Your task to perform on an android device: create a new album in the google photos Image 0: 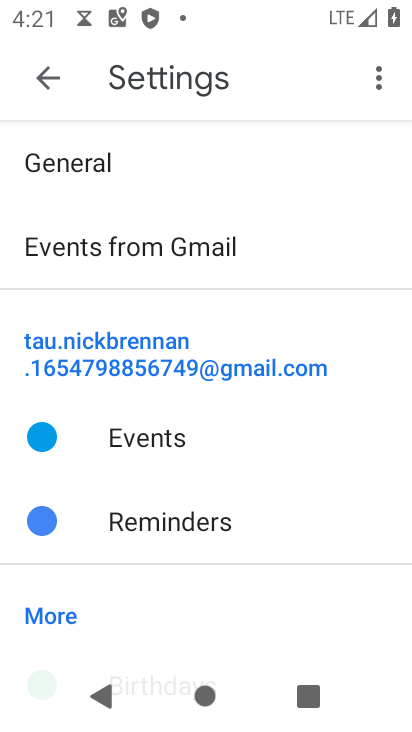
Step 0: press back button
Your task to perform on an android device: create a new album in the google photos Image 1: 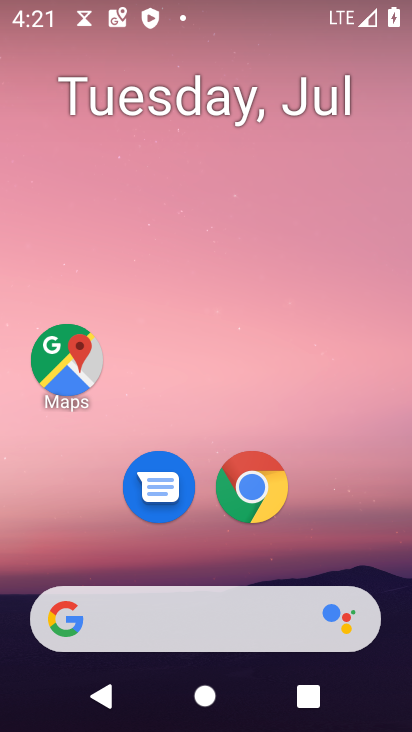
Step 1: drag from (197, 570) to (238, 0)
Your task to perform on an android device: create a new album in the google photos Image 2: 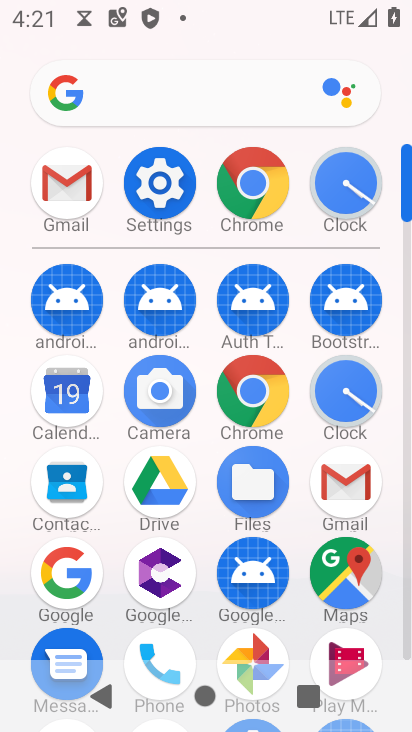
Step 2: drag from (248, 610) to (291, 119)
Your task to perform on an android device: create a new album in the google photos Image 3: 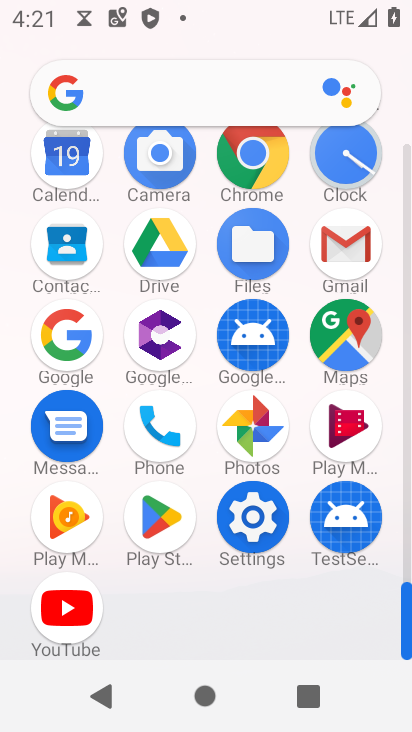
Step 3: click (248, 433)
Your task to perform on an android device: create a new album in the google photos Image 4: 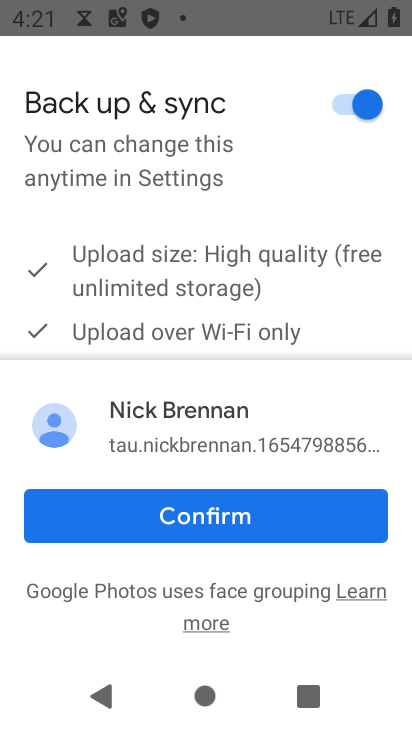
Step 4: click (210, 522)
Your task to perform on an android device: create a new album in the google photos Image 5: 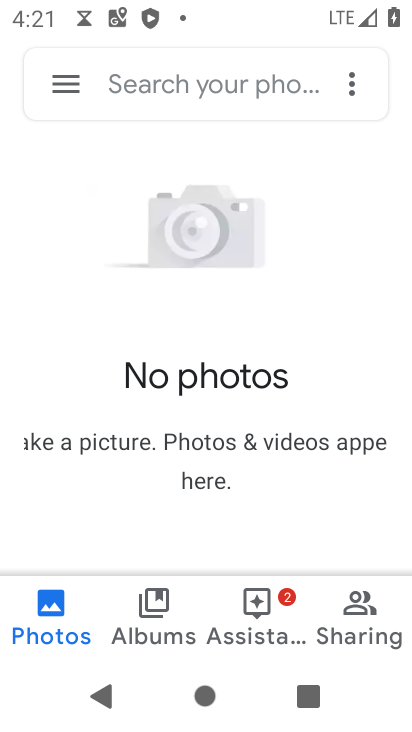
Step 5: click (57, 617)
Your task to perform on an android device: create a new album in the google photos Image 6: 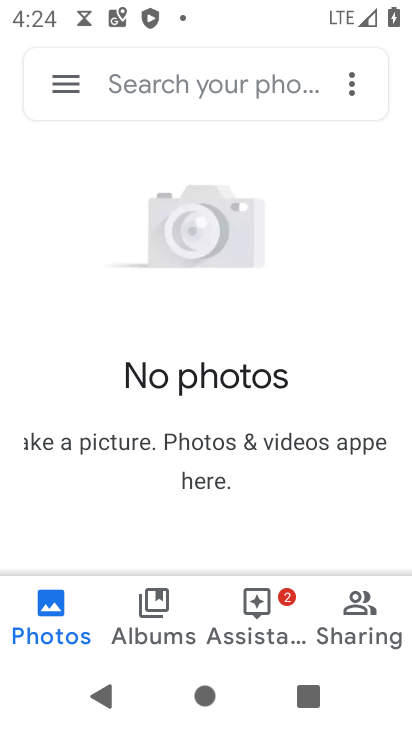
Step 6: click (144, 624)
Your task to perform on an android device: create a new album in the google photos Image 7: 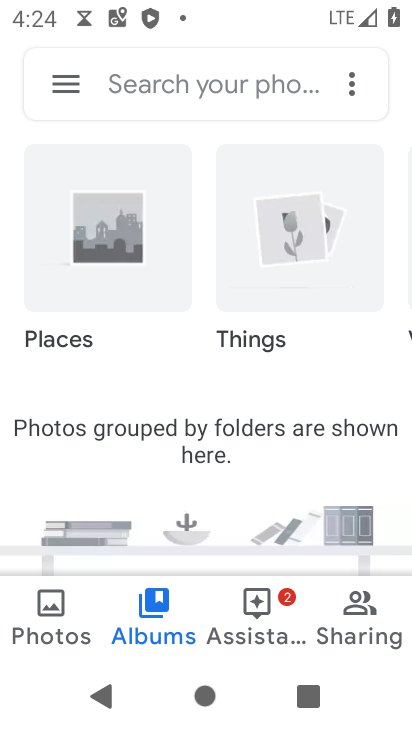
Step 7: drag from (126, 488) to (246, 26)
Your task to perform on an android device: create a new album in the google photos Image 8: 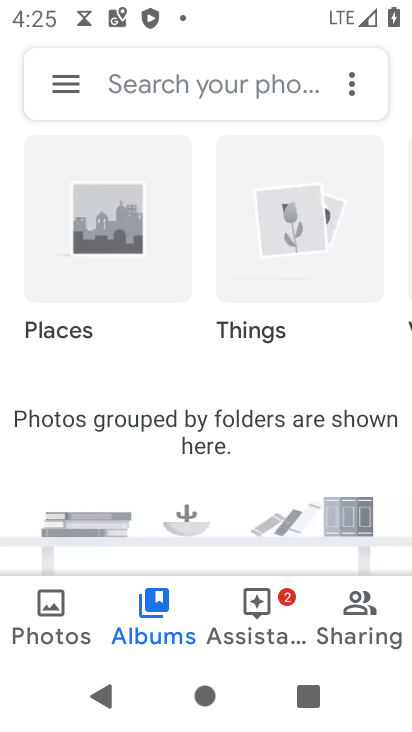
Step 8: drag from (159, 532) to (283, 7)
Your task to perform on an android device: create a new album in the google photos Image 9: 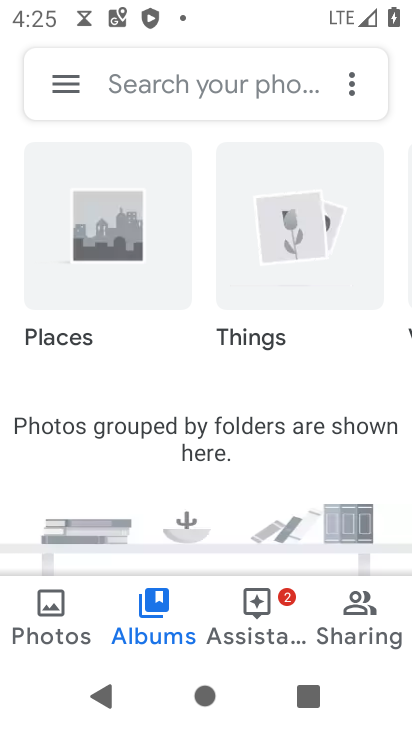
Step 9: drag from (268, 424) to (306, 22)
Your task to perform on an android device: create a new album in the google photos Image 10: 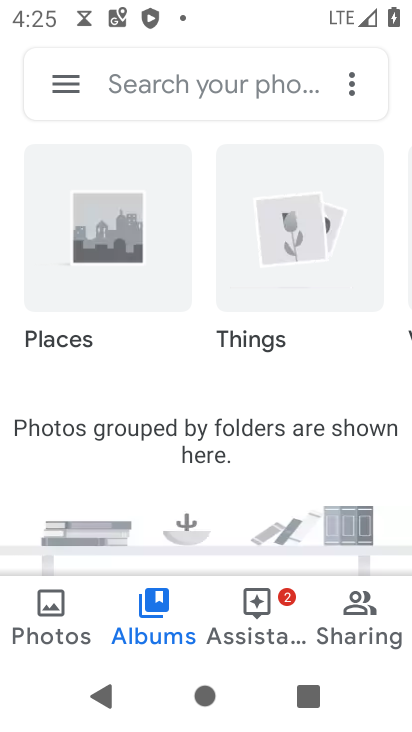
Step 10: click (148, 631)
Your task to perform on an android device: create a new album in the google photos Image 11: 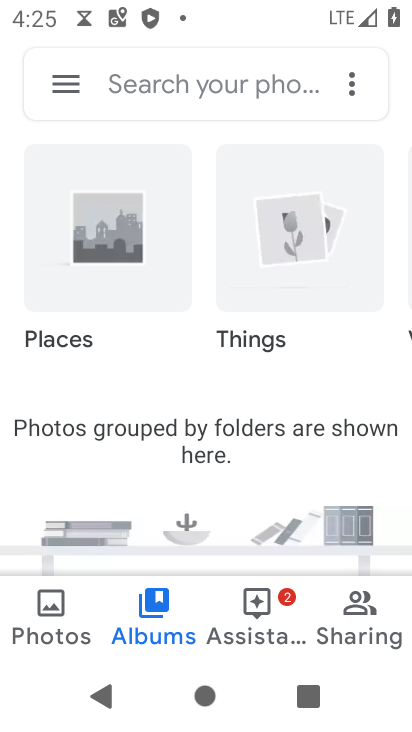
Step 11: click (354, 68)
Your task to perform on an android device: create a new album in the google photos Image 12: 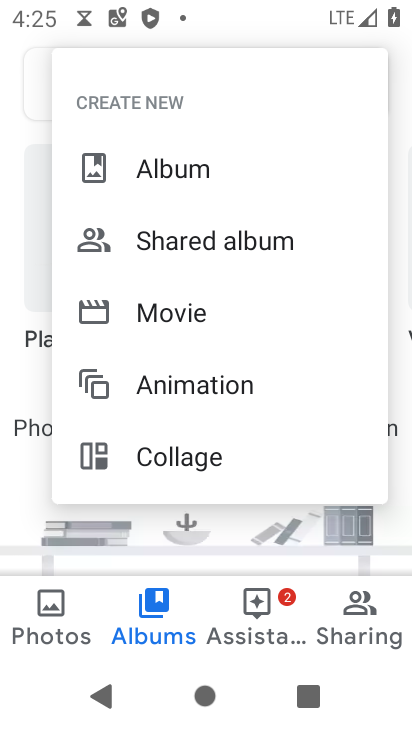
Step 12: click (230, 98)
Your task to perform on an android device: create a new album in the google photos Image 13: 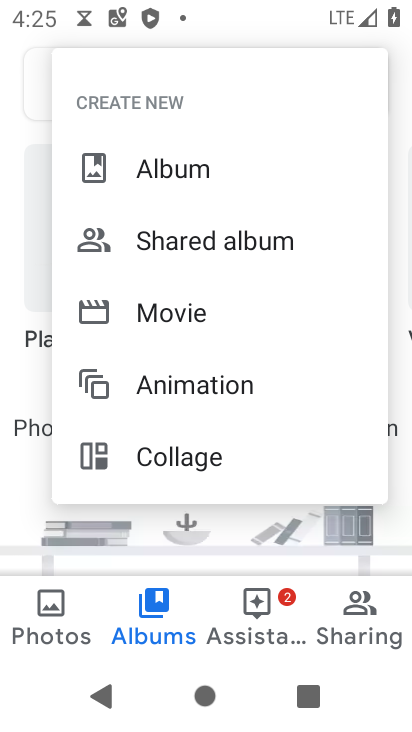
Step 13: click (189, 140)
Your task to perform on an android device: create a new album in the google photos Image 14: 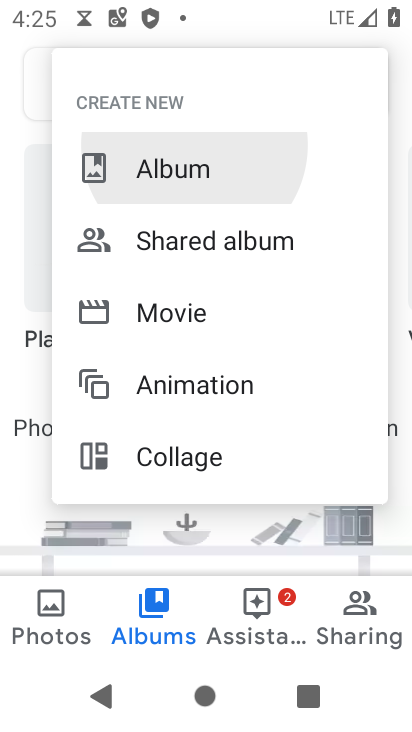
Step 14: click (178, 175)
Your task to perform on an android device: create a new album in the google photos Image 15: 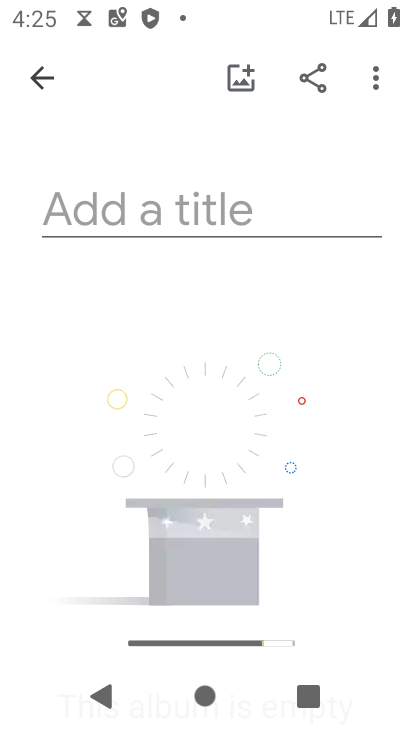
Step 15: click (128, 217)
Your task to perform on an android device: create a new album in the google photos Image 16: 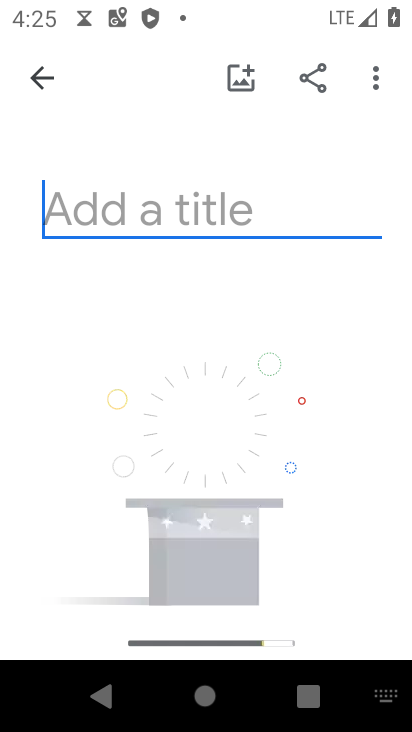
Step 16: type "cvbvb"
Your task to perform on an android device: create a new album in the google photos Image 17: 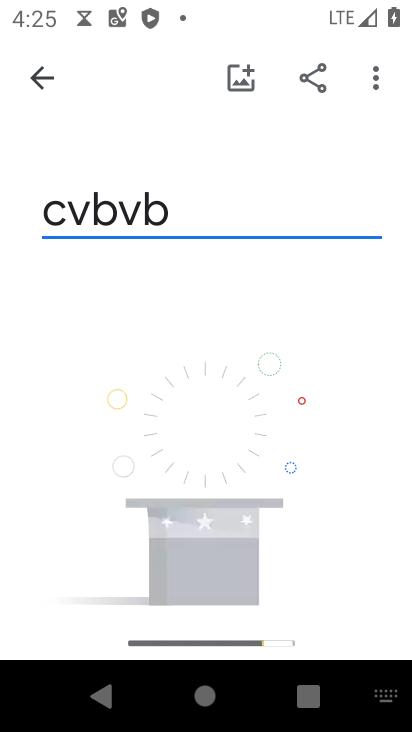
Step 17: drag from (186, 520) to (278, 2)
Your task to perform on an android device: create a new album in the google photos Image 18: 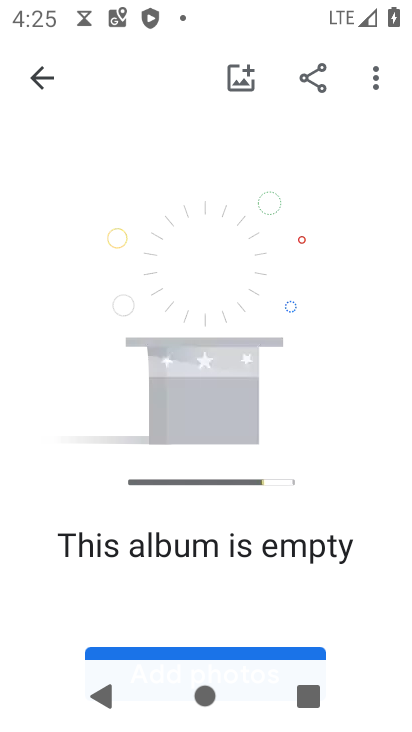
Step 18: drag from (205, 501) to (276, 3)
Your task to perform on an android device: create a new album in the google photos Image 19: 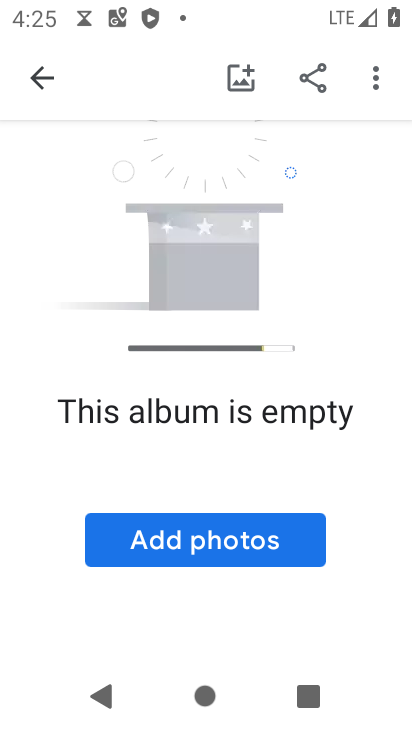
Step 19: click (180, 550)
Your task to perform on an android device: create a new album in the google photos Image 20: 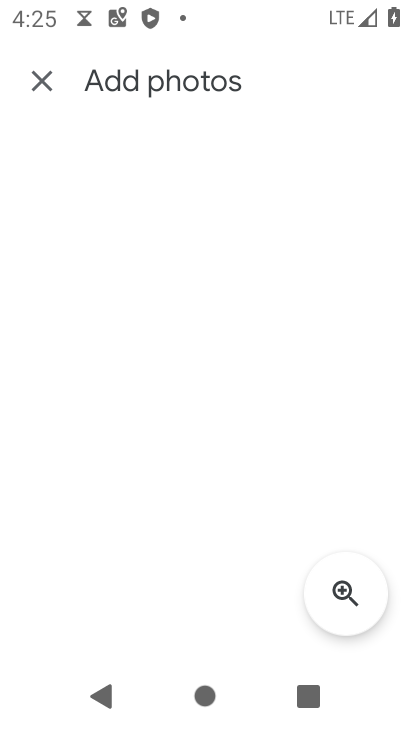
Step 20: task complete